Your task to perform on an android device: Go to Maps Image 0: 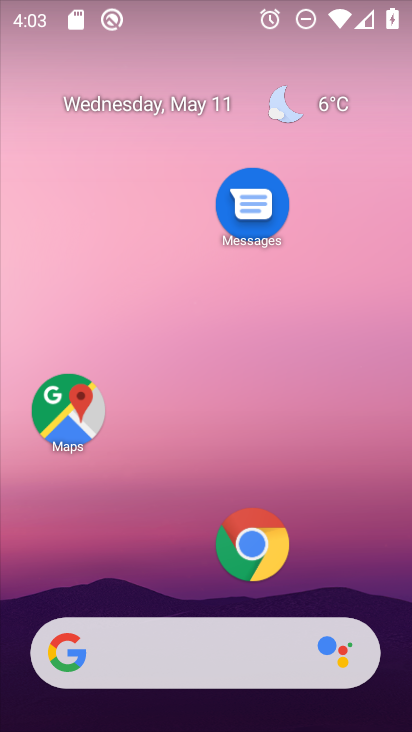
Step 0: click (73, 412)
Your task to perform on an android device: Go to Maps Image 1: 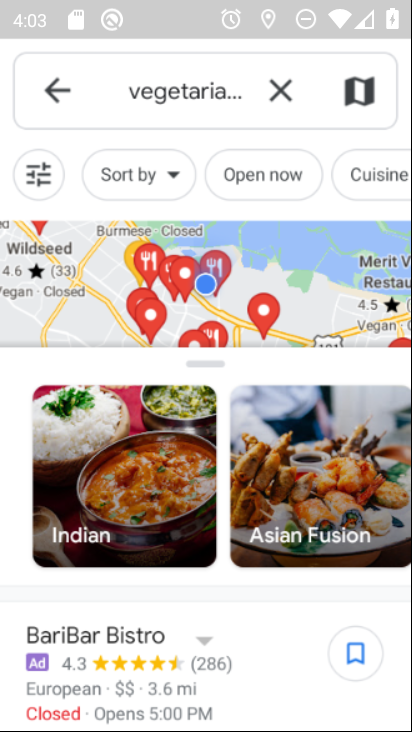
Step 1: task complete